Your task to perform on an android device: turn on priority inbox in the gmail app Image 0: 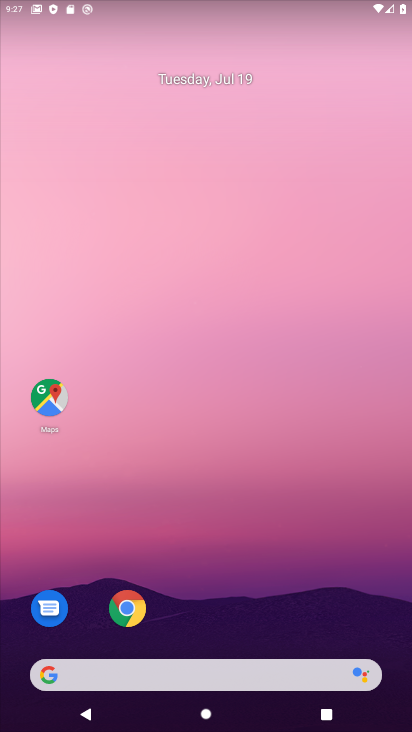
Step 0: drag from (237, 644) to (234, 300)
Your task to perform on an android device: turn on priority inbox in the gmail app Image 1: 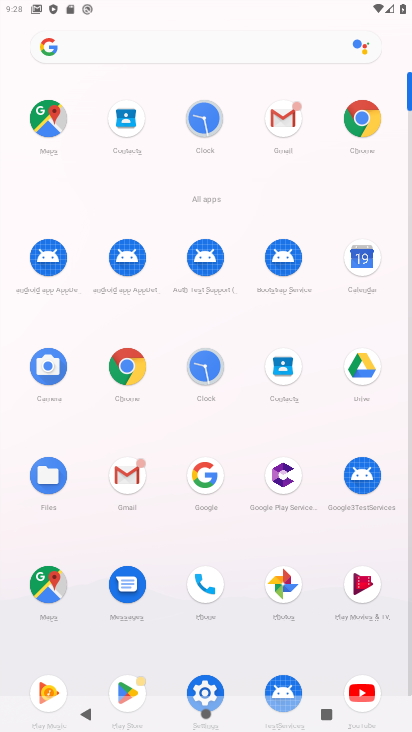
Step 1: click (284, 111)
Your task to perform on an android device: turn on priority inbox in the gmail app Image 2: 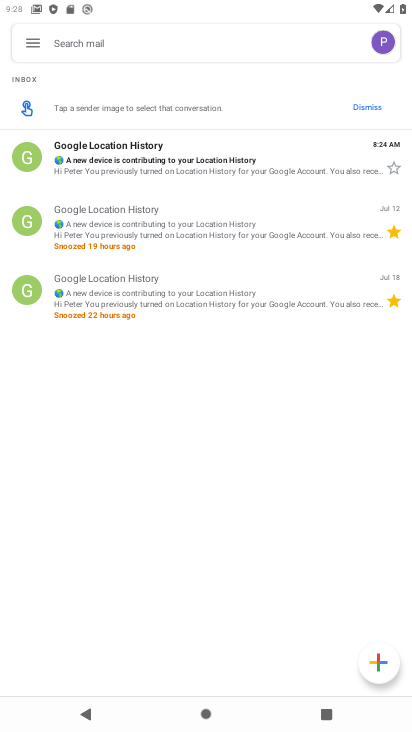
Step 2: click (31, 48)
Your task to perform on an android device: turn on priority inbox in the gmail app Image 3: 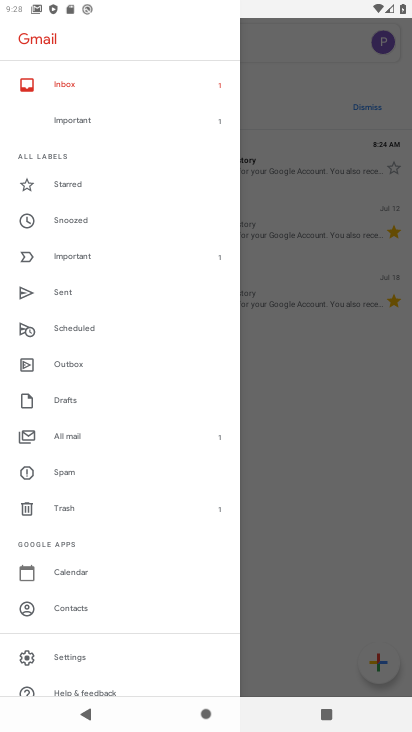
Step 3: click (60, 650)
Your task to perform on an android device: turn on priority inbox in the gmail app Image 4: 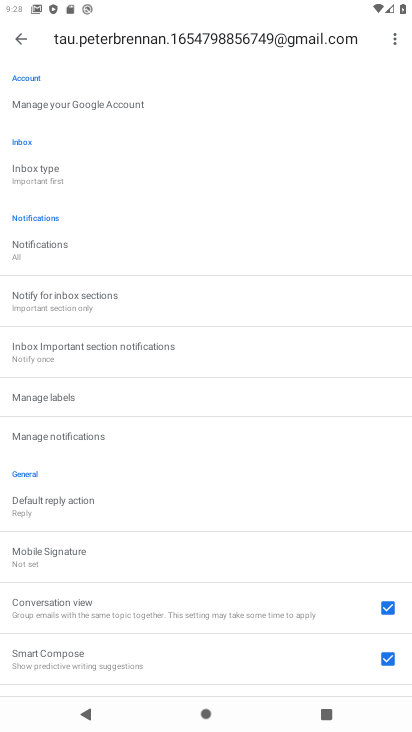
Step 4: click (44, 169)
Your task to perform on an android device: turn on priority inbox in the gmail app Image 5: 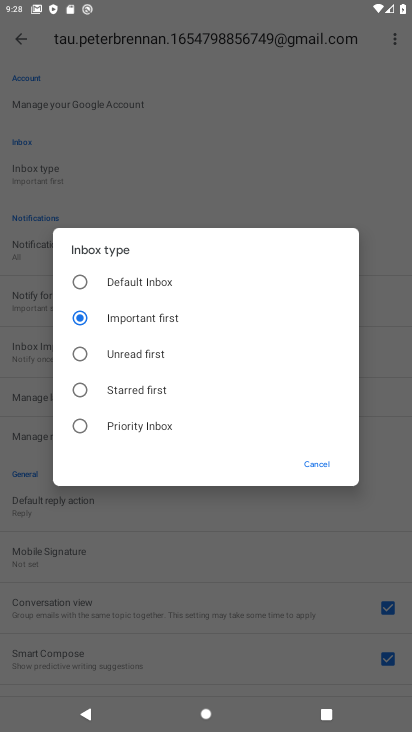
Step 5: task complete